Your task to perform on an android device: turn on sleep mode Image 0: 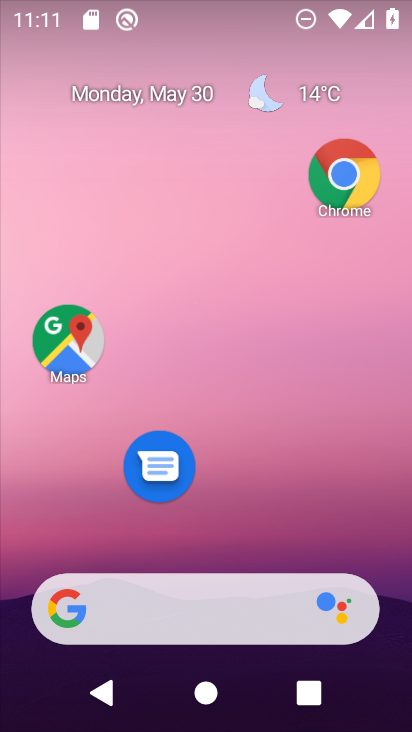
Step 0: drag from (268, 431) to (177, 0)
Your task to perform on an android device: turn on sleep mode Image 1: 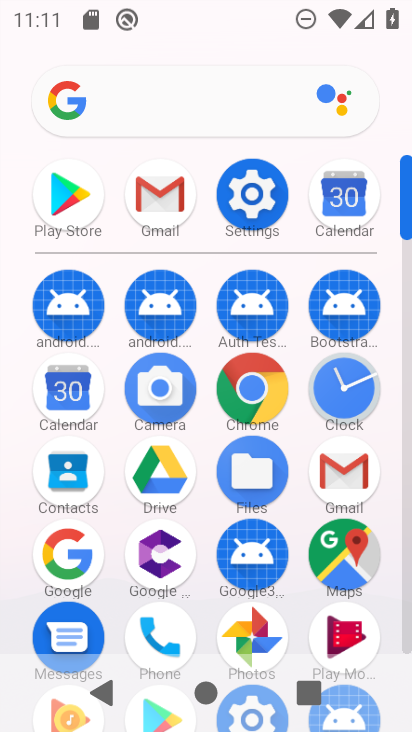
Step 1: click (261, 186)
Your task to perform on an android device: turn on sleep mode Image 2: 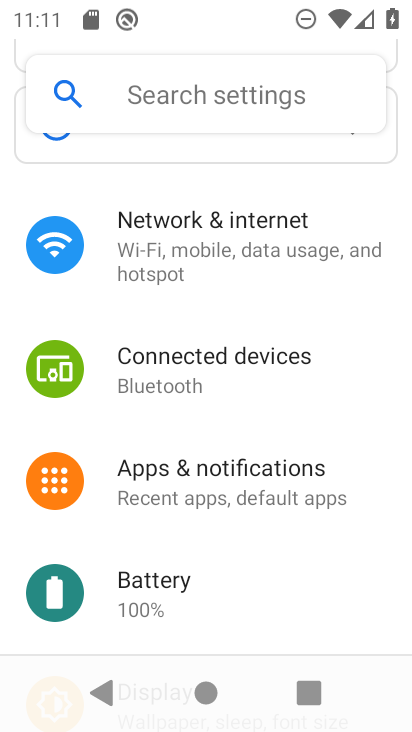
Step 2: drag from (202, 582) to (168, 323)
Your task to perform on an android device: turn on sleep mode Image 3: 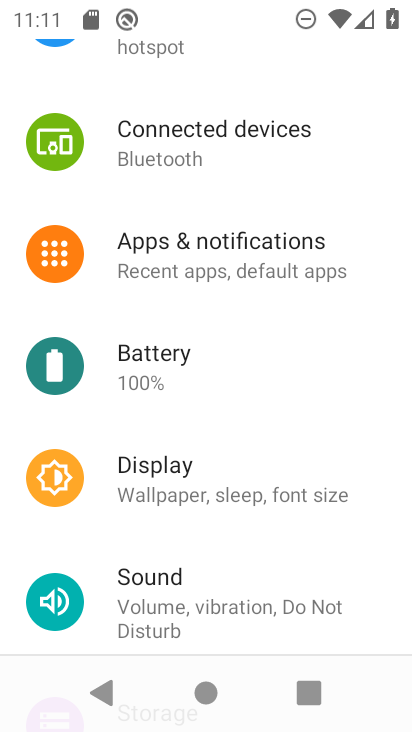
Step 3: click (165, 496)
Your task to perform on an android device: turn on sleep mode Image 4: 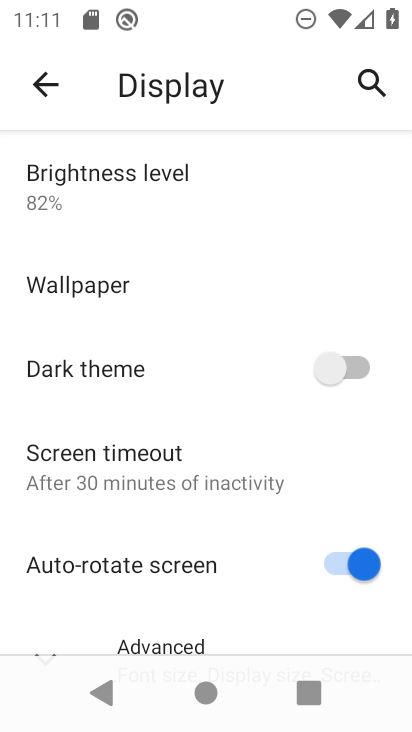
Step 4: drag from (181, 598) to (172, 256)
Your task to perform on an android device: turn on sleep mode Image 5: 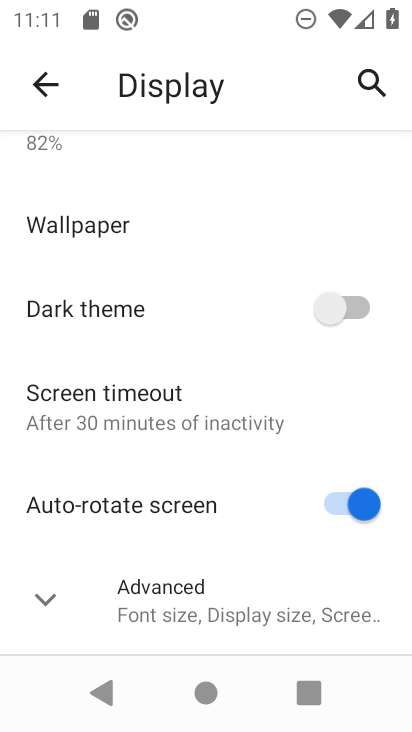
Step 5: click (152, 599)
Your task to perform on an android device: turn on sleep mode Image 6: 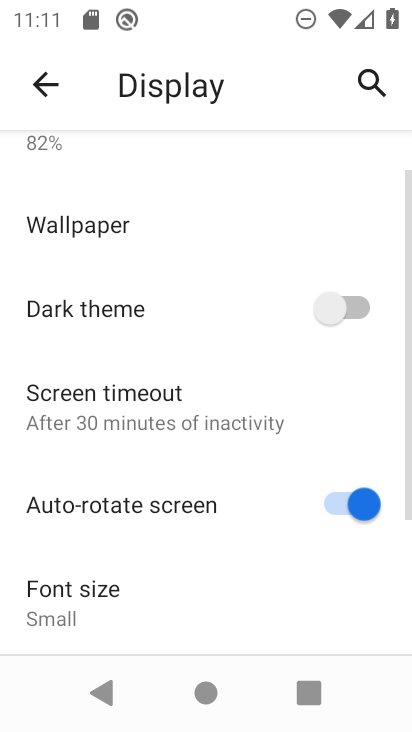
Step 6: task complete